Your task to perform on an android device: Search for razer blade on costco, select the first entry, add it to the cart, then select checkout. Image 0: 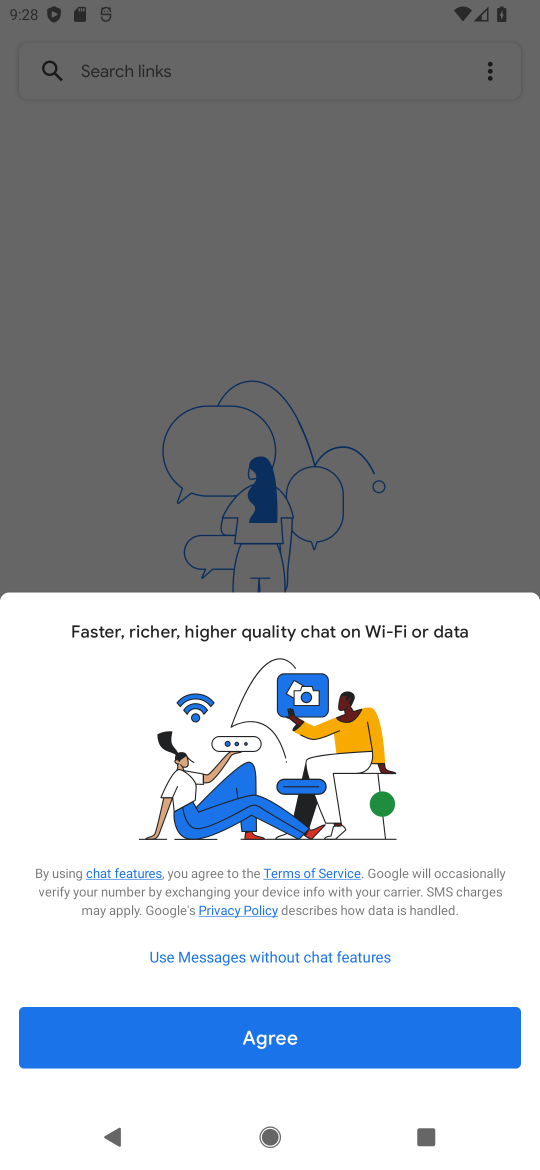
Step 0: press home button
Your task to perform on an android device: Search for razer blade on costco, select the first entry, add it to the cart, then select checkout. Image 1: 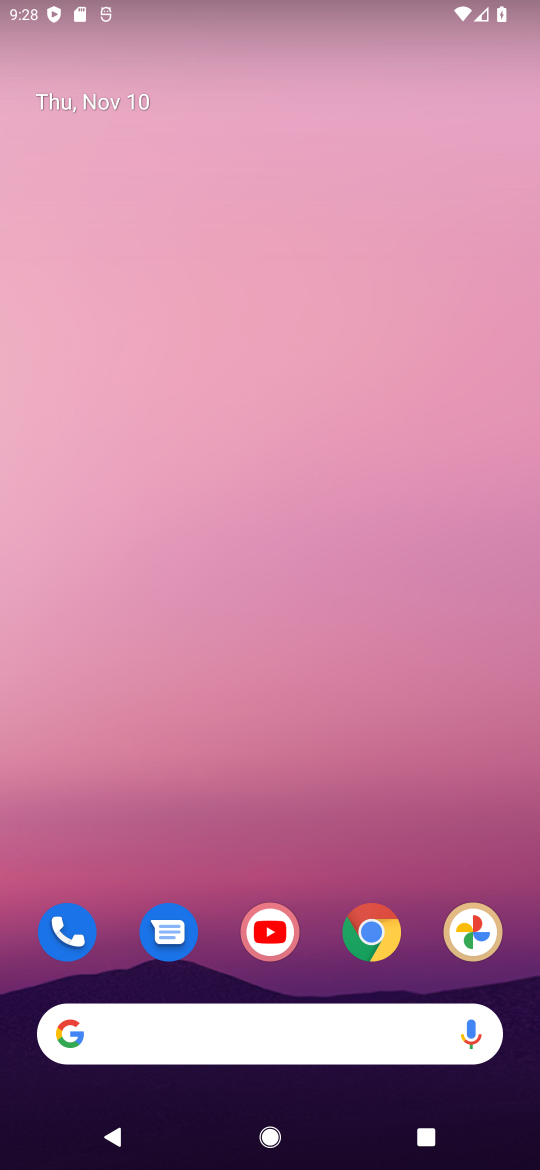
Step 1: click (375, 925)
Your task to perform on an android device: Search for razer blade on costco, select the first entry, add it to the cart, then select checkout. Image 2: 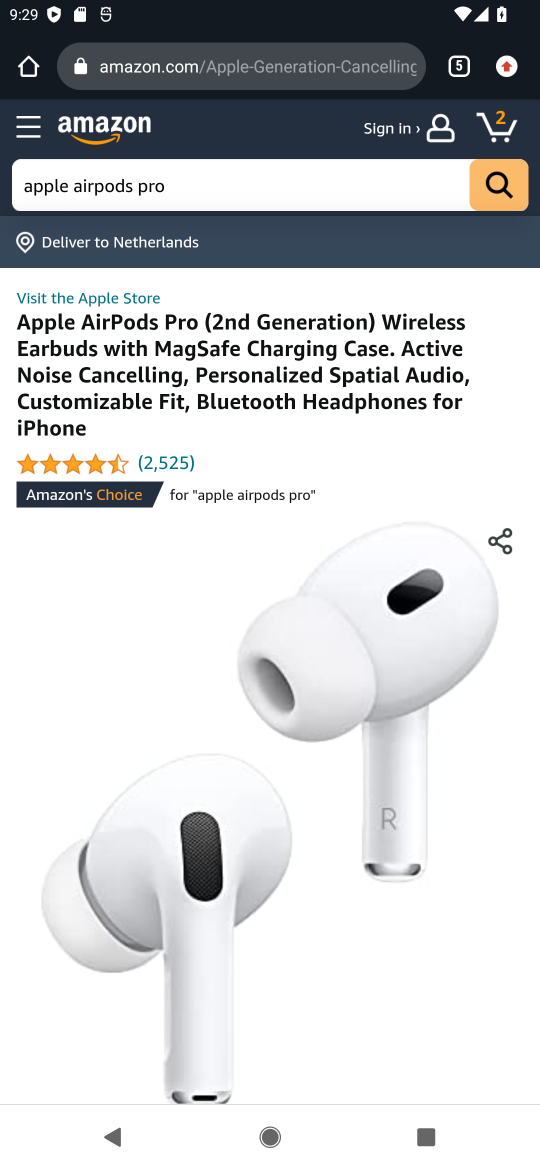
Step 2: click (462, 71)
Your task to perform on an android device: Search for razer blade on costco, select the first entry, add it to the cart, then select checkout. Image 3: 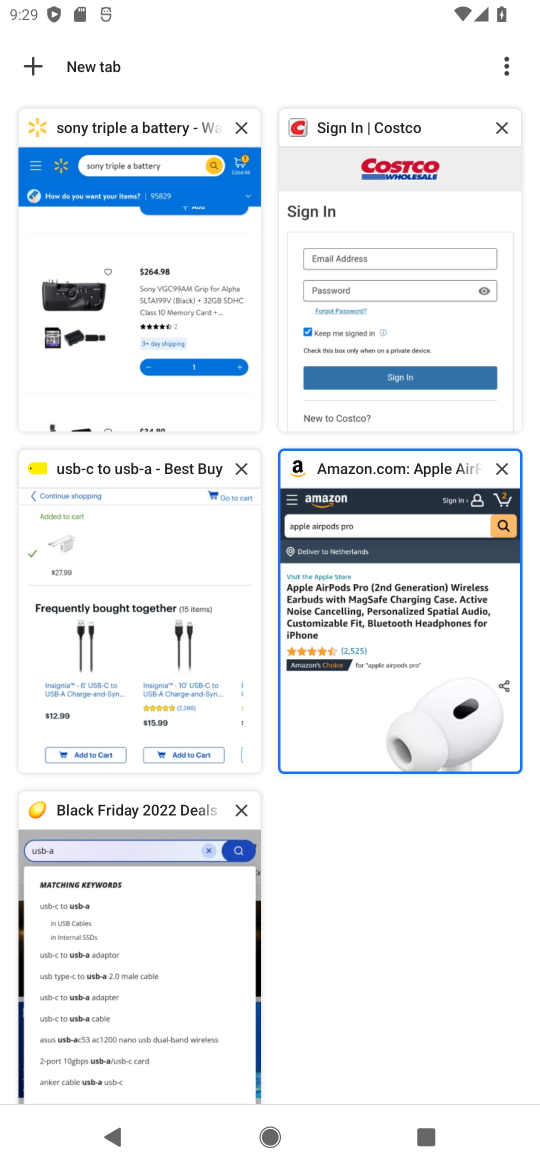
Step 3: click (448, 231)
Your task to perform on an android device: Search for razer blade on costco, select the first entry, add it to the cart, then select checkout. Image 4: 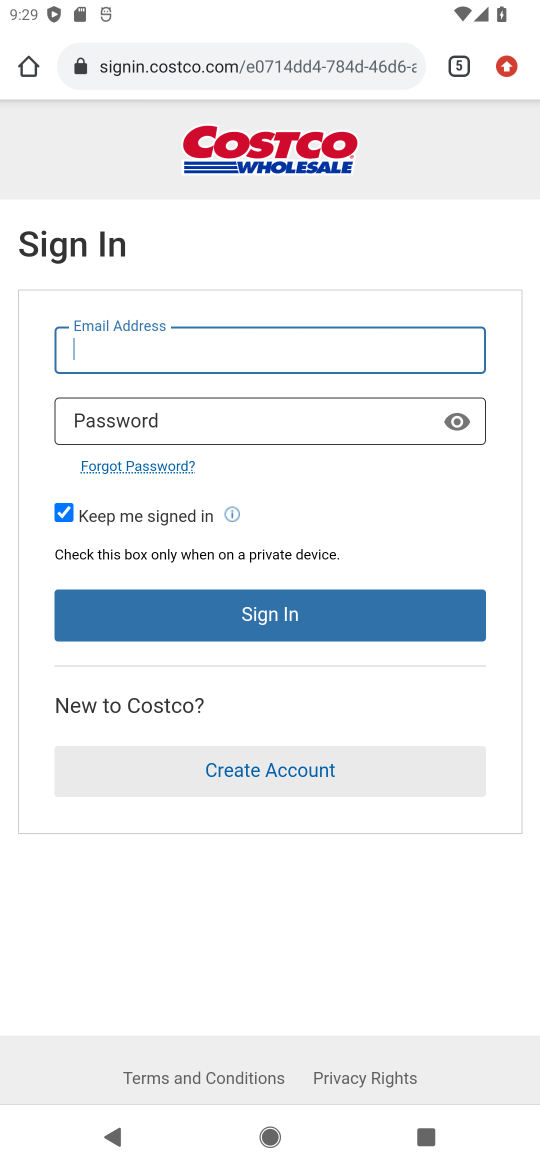
Step 4: press back button
Your task to perform on an android device: Search for razer blade on costco, select the first entry, add it to the cart, then select checkout. Image 5: 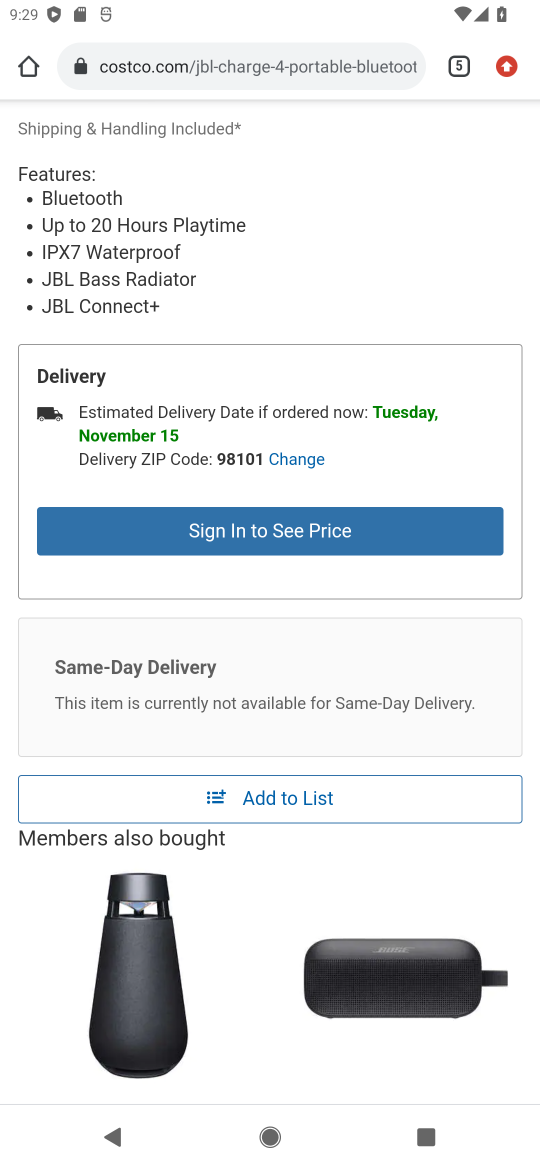
Step 5: click (272, 143)
Your task to perform on an android device: Search for razer blade on costco, select the first entry, add it to the cart, then select checkout. Image 6: 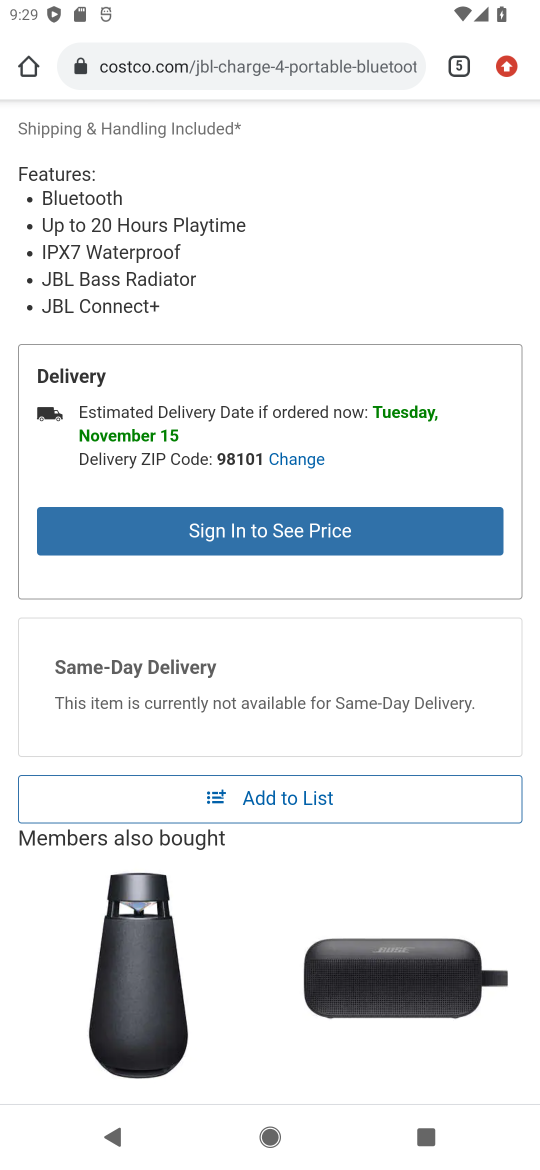
Step 6: drag from (233, 159) to (253, 791)
Your task to perform on an android device: Search for razer blade on costco, select the first entry, add it to the cart, then select checkout. Image 7: 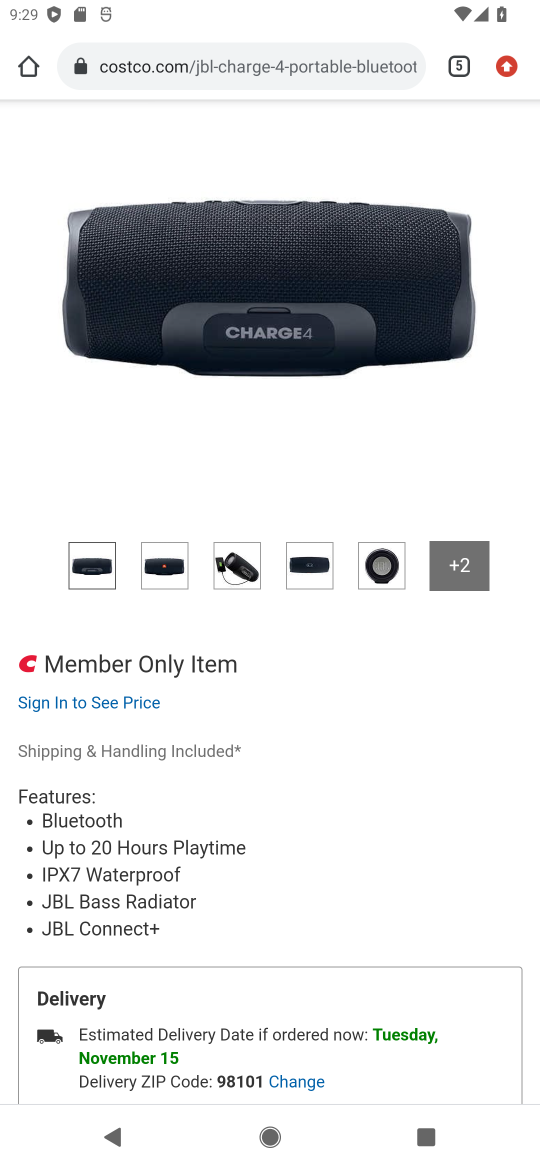
Step 7: drag from (253, 791) to (288, 1152)
Your task to perform on an android device: Search for razer blade on costco, select the first entry, add it to the cart, then select checkout. Image 8: 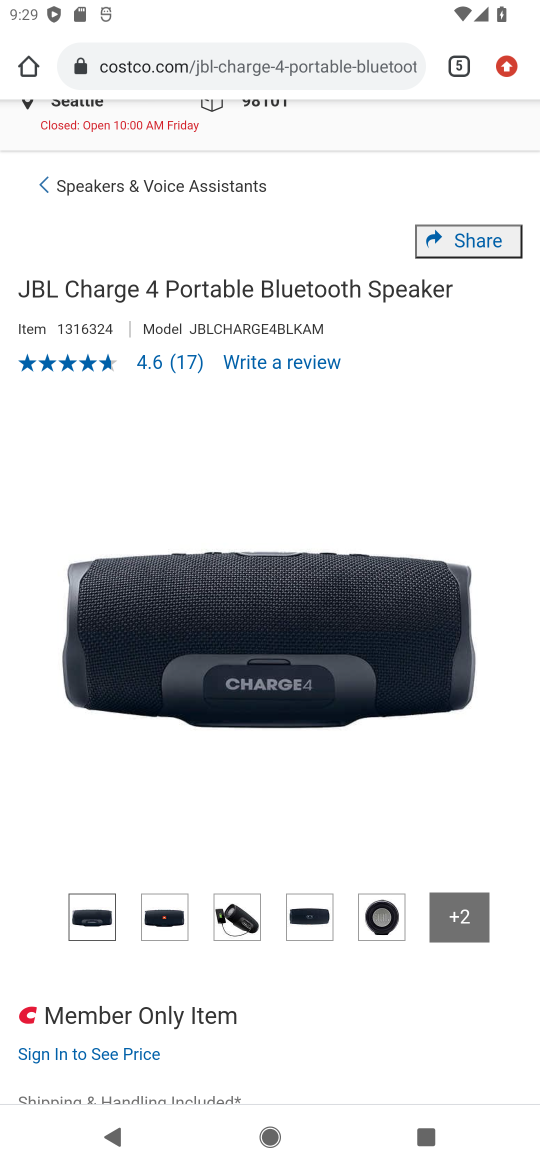
Step 8: drag from (367, 135) to (352, 526)
Your task to perform on an android device: Search for razer blade on costco, select the first entry, add it to the cart, then select checkout. Image 9: 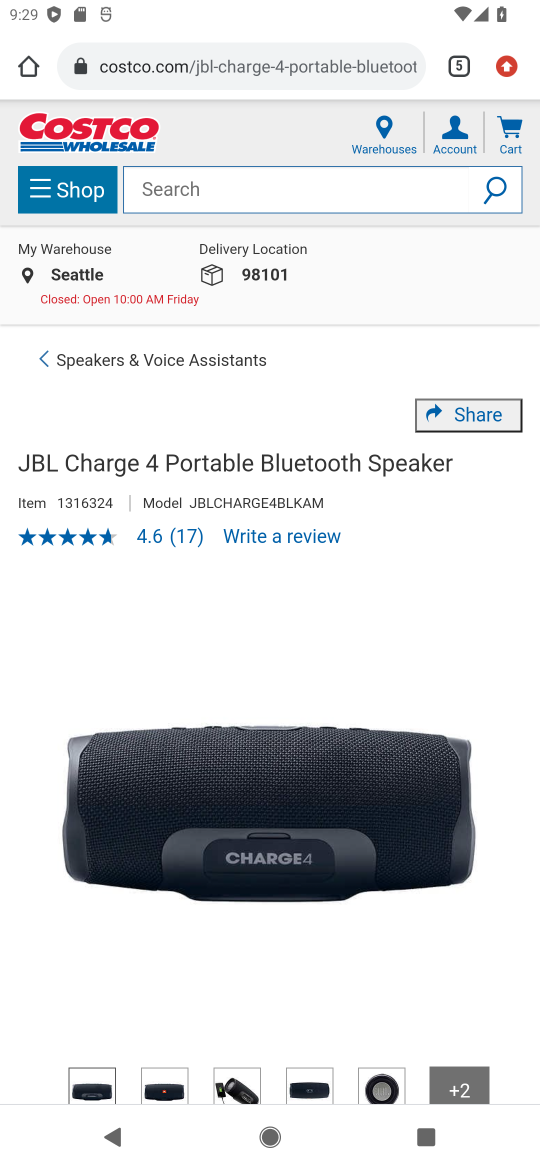
Step 9: click (183, 192)
Your task to perform on an android device: Search for razer blade on costco, select the first entry, add it to the cart, then select checkout. Image 10: 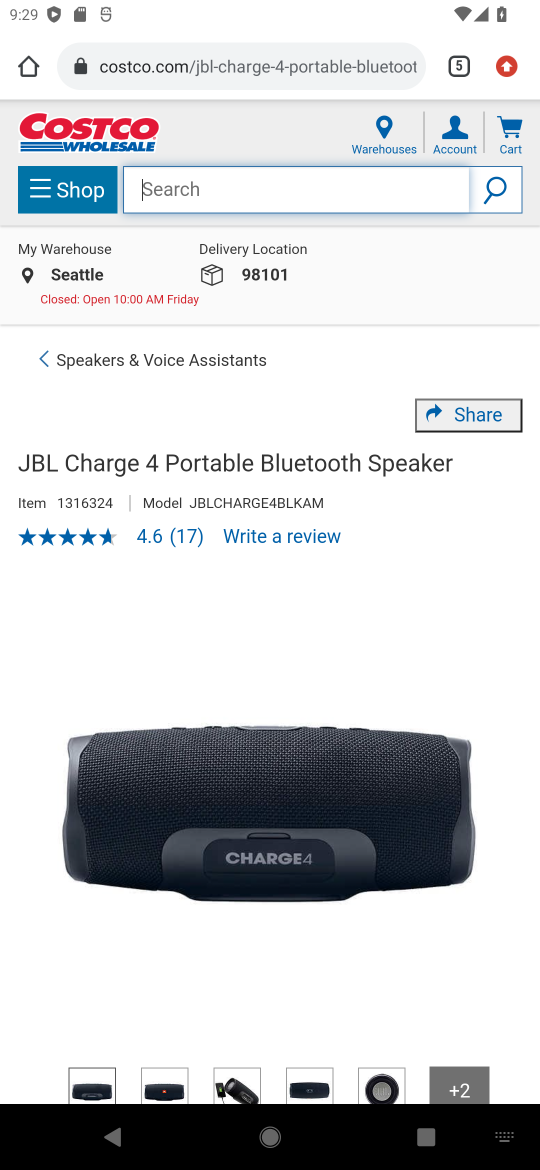
Step 10: type "razer blade"
Your task to perform on an android device: Search for razer blade on costco, select the first entry, add it to the cart, then select checkout. Image 11: 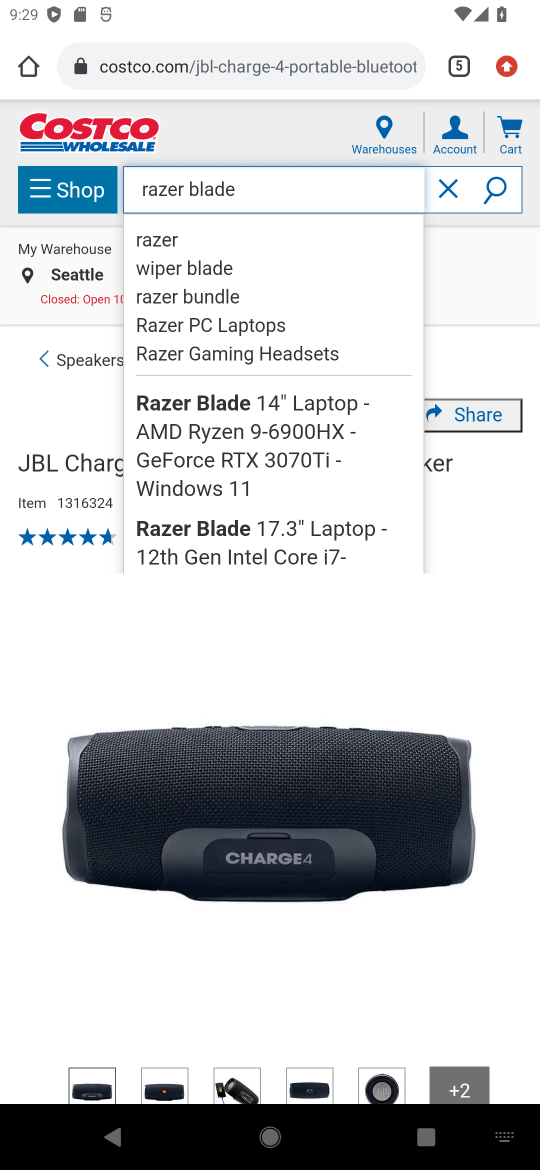
Step 11: click (506, 175)
Your task to perform on an android device: Search for razer blade on costco, select the first entry, add it to the cart, then select checkout. Image 12: 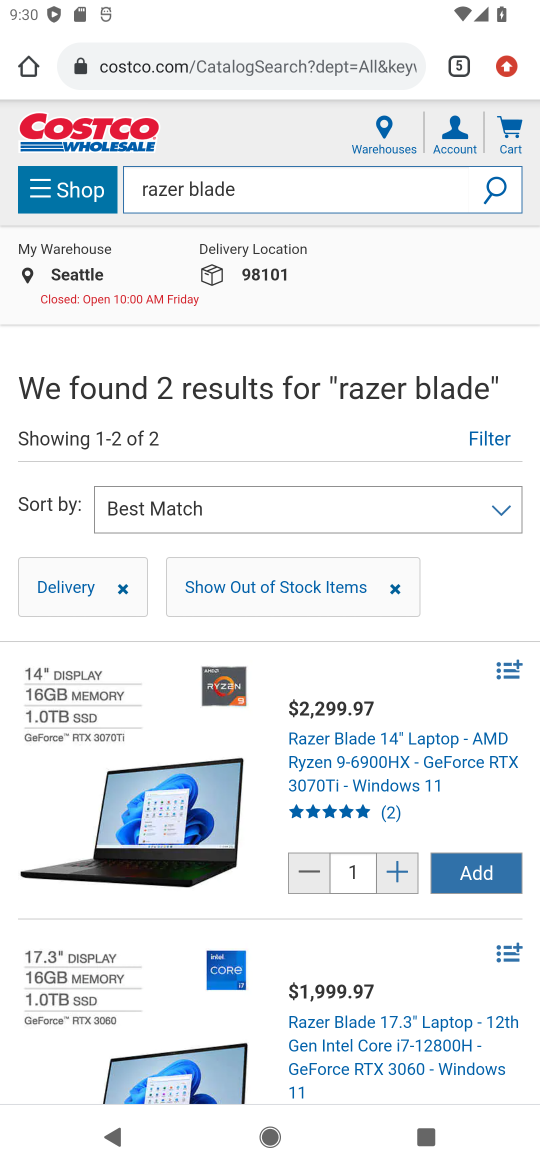
Step 12: click (475, 870)
Your task to perform on an android device: Search for razer blade on costco, select the first entry, add it to the cart, then select checkout. Image 13: 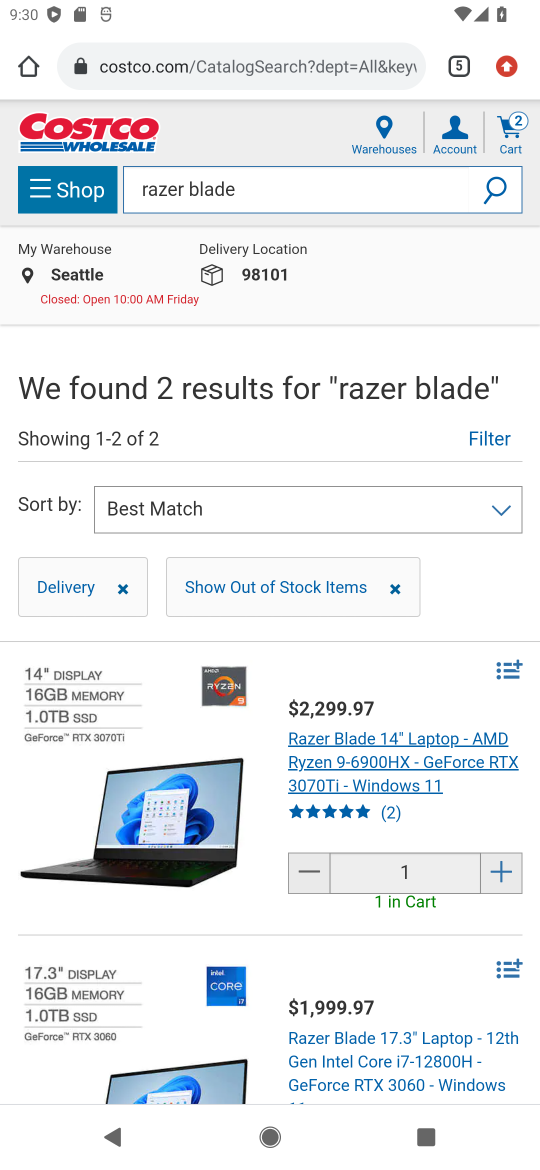
Step 13: click (507, 120)
Your task to perform on an android device: Search for razer blade on costco, select the first entry, add it to the cart, then select checkout. Image 14: 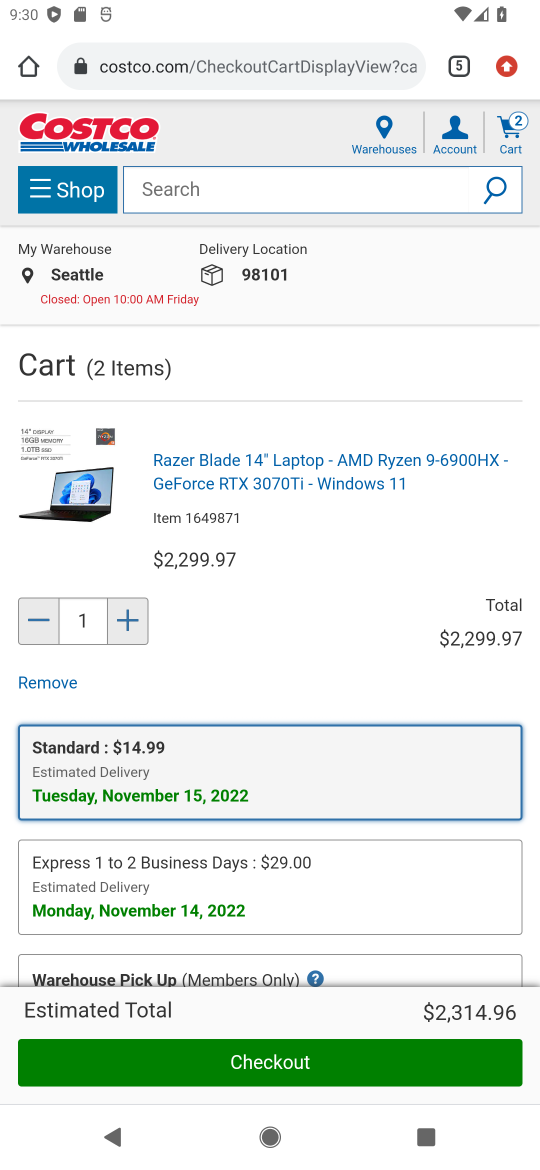
Step 14: click (284, 1066)
Your task to perform on an android device: Search for razer blade on costco, select the first entry, add it to the cart, then select checkout. Image 15: 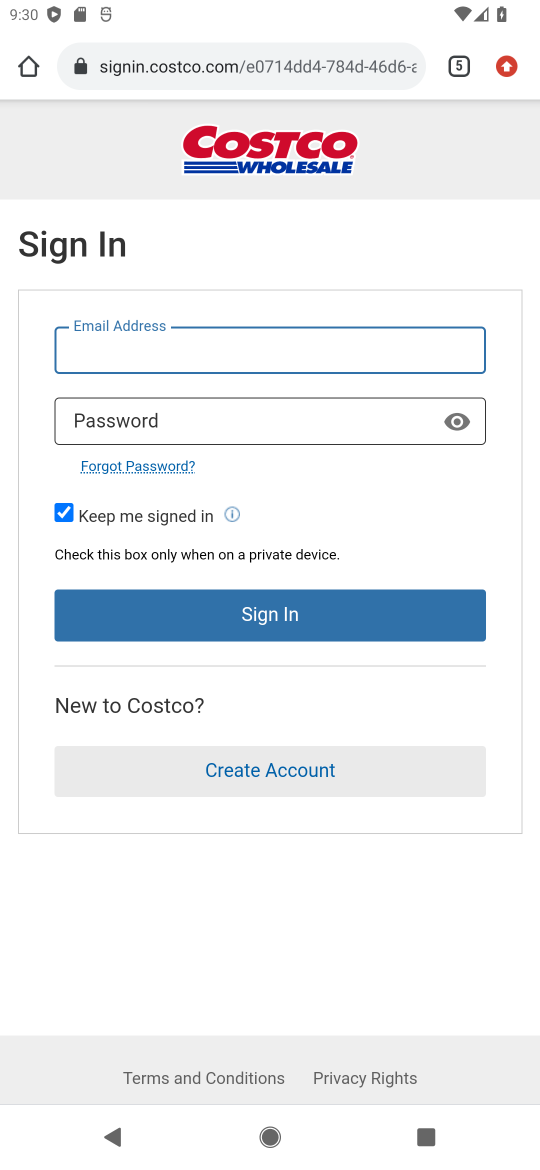
Step 15: task complete